Your task to perform on an android device: Search for vegetarian restaurants on Maps Image 0: 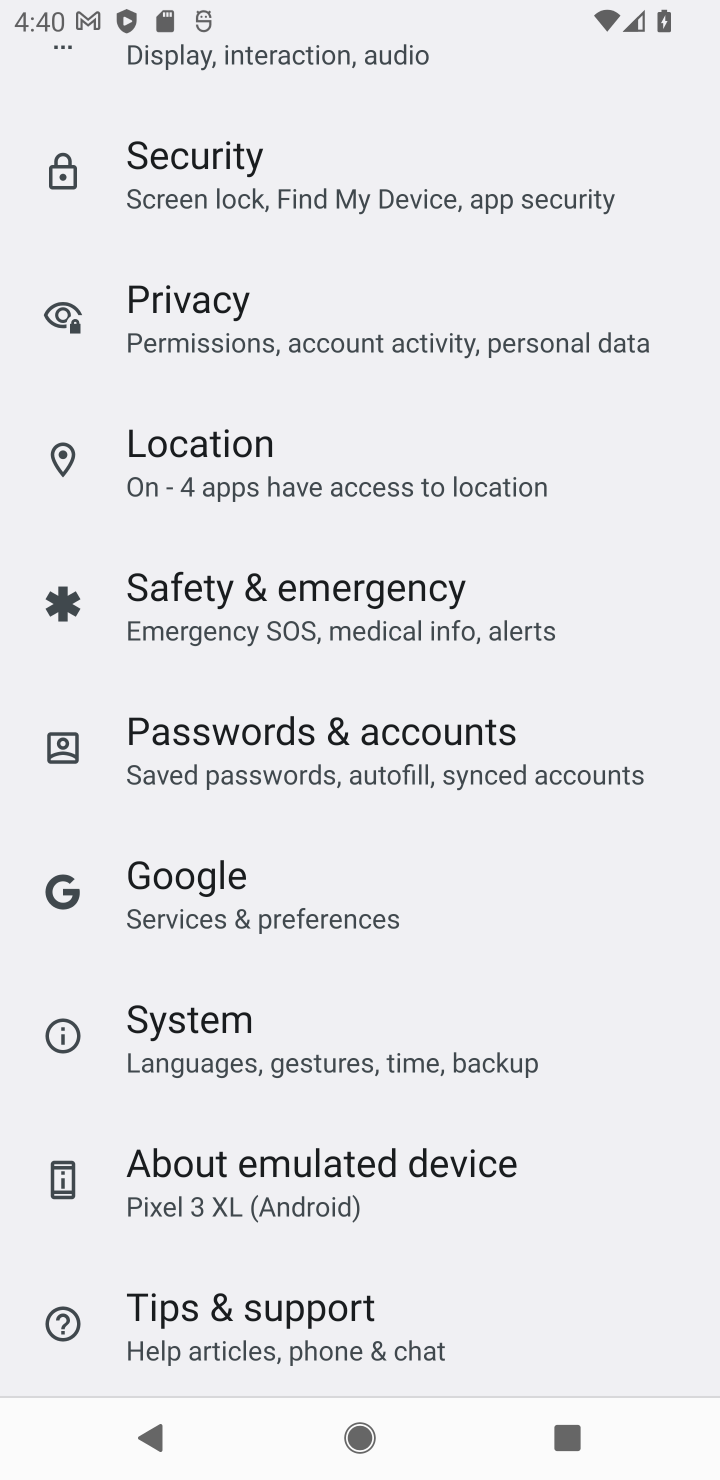
Step 0: press home button
Your task to perform on an android device: Search for vegetarian restaurants on Maps Image 1: 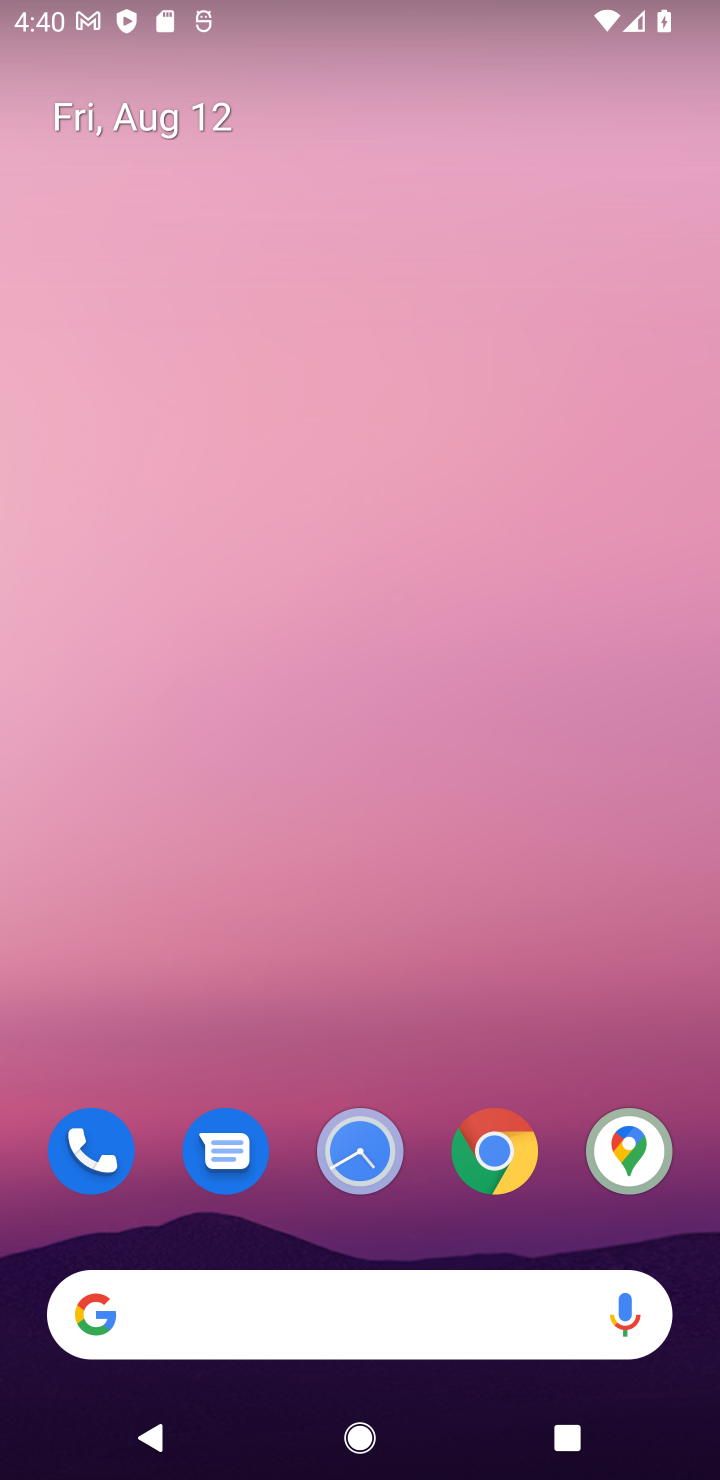
Step 1: drag from (486, 903) to (551, 41)
Your task to perform on an android device: Search for vegetarian restaurants on Maps Image 2: 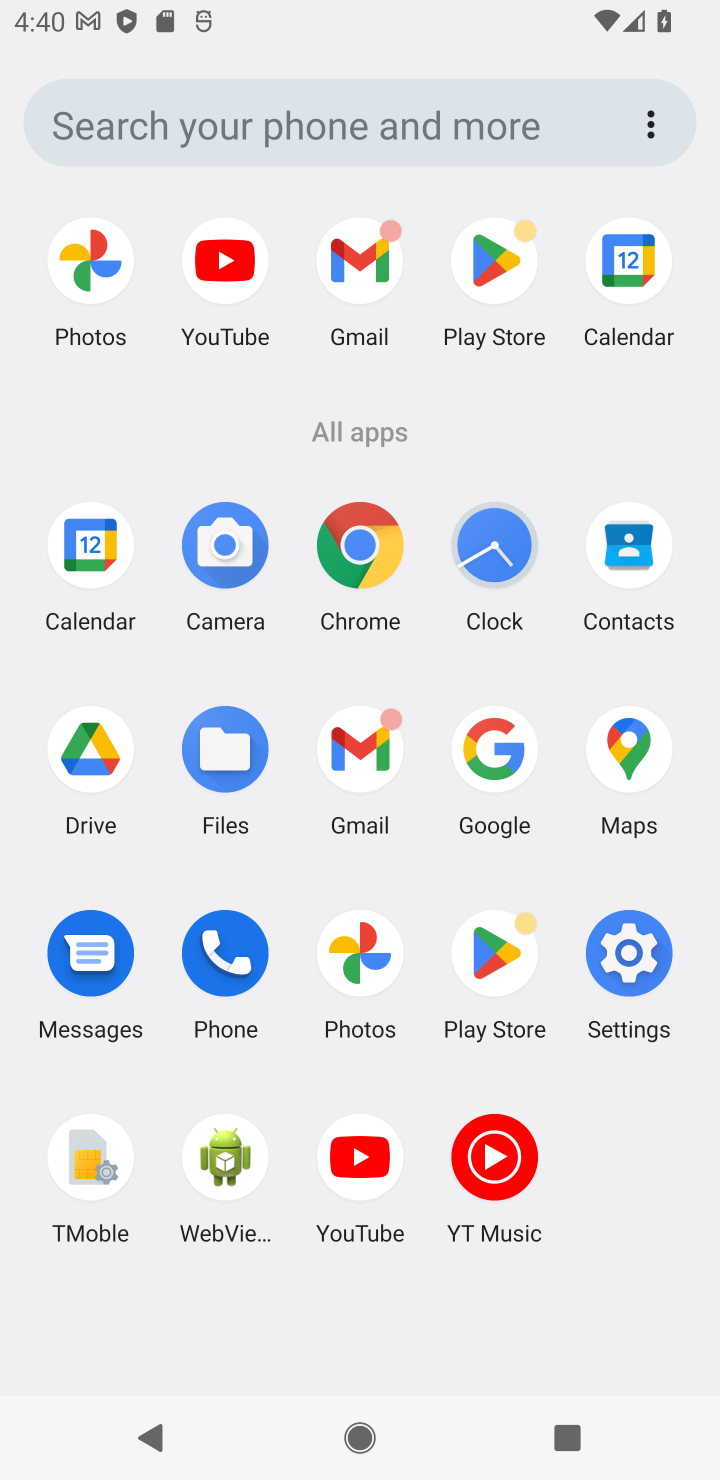
Step 2: click (651, 757)
Your task to perform on an android device: Search for vegetarian restaurants on Maps Image 3: 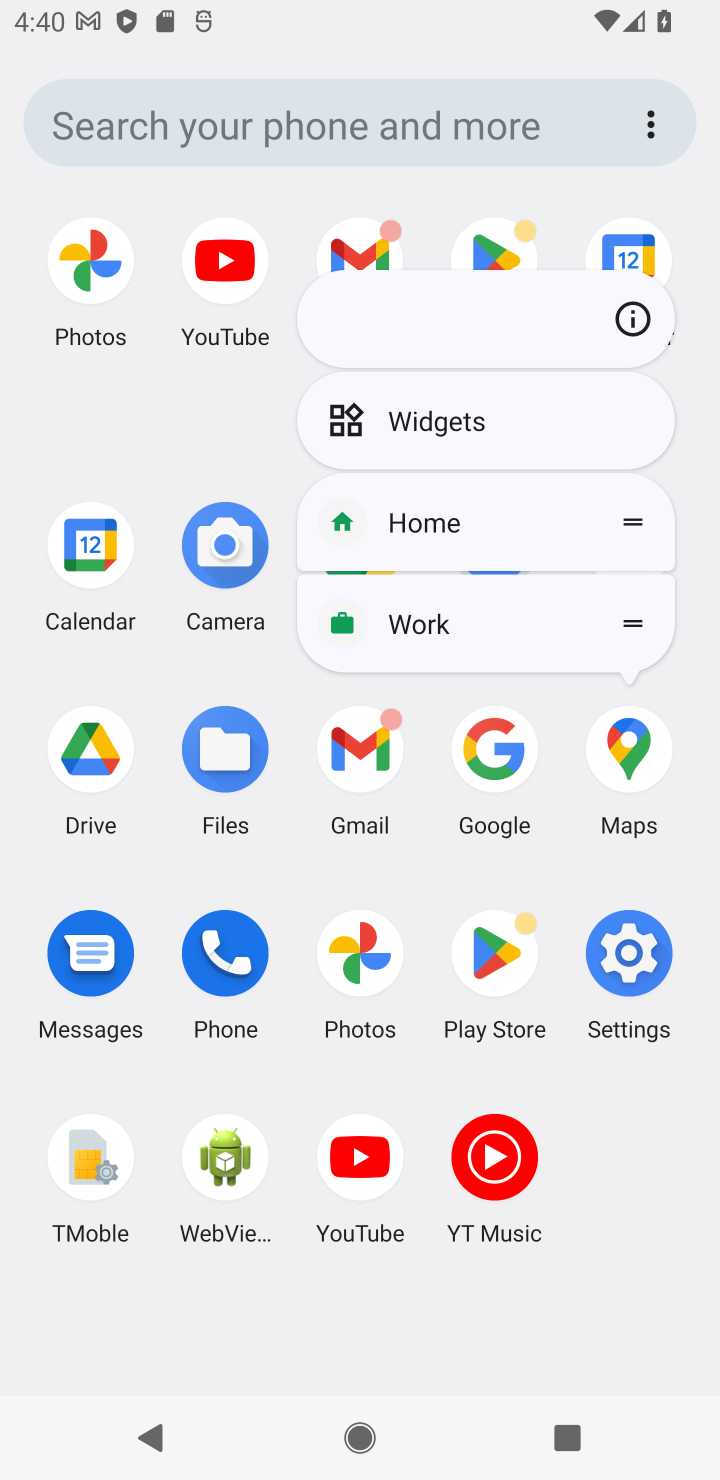
Step 3: click (612, 769)
Your task to perform on an android device: Search for vegetarian restaurants on Maps Image 4: 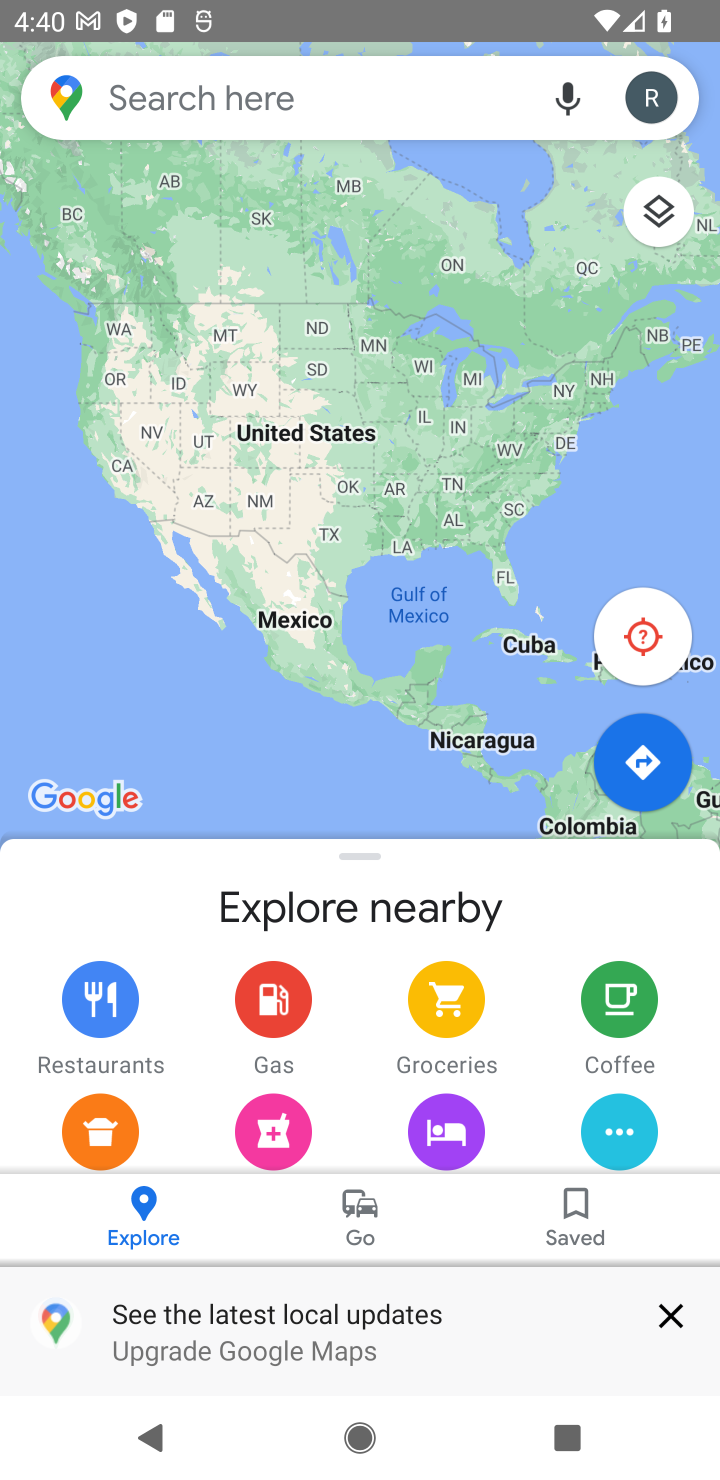
Step 4: click (259, 85)
Your task to perform on an android device: Search for vegetarian restaurants on Maps Image 5: 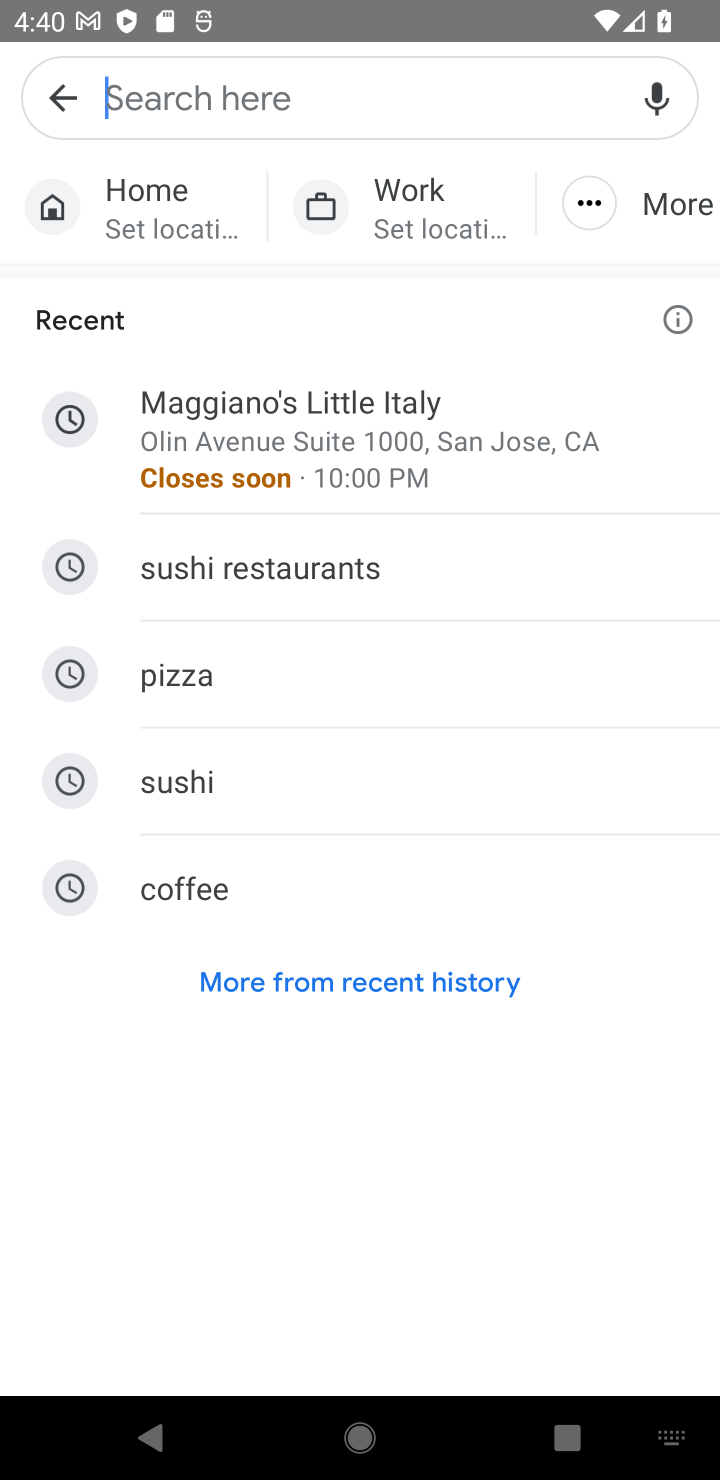
Step 5: type "vegetarian restaurants"
Your task to perform on an android device: Search for vegetarian restaurants on Maps Image 6: 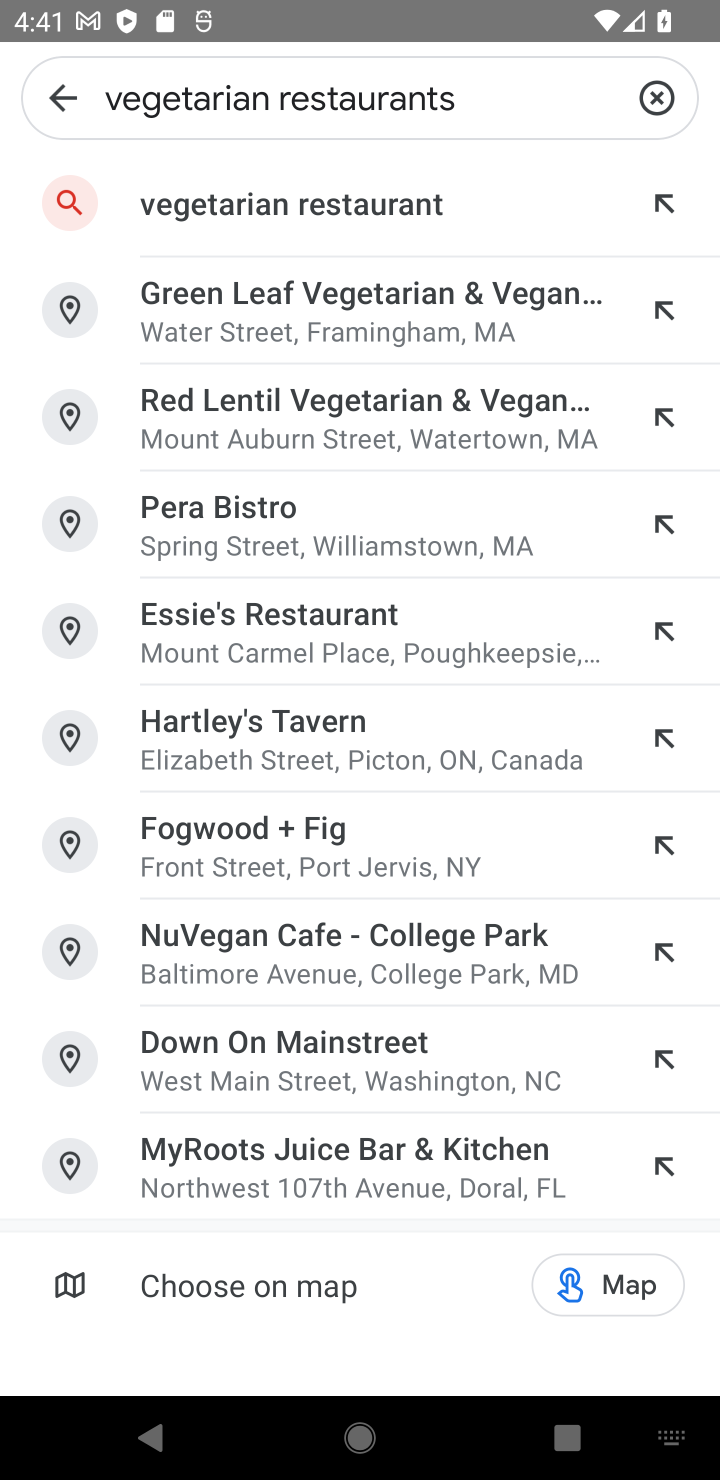
Step 6: press enter
Your task to perform on an android device: Search for vegetarian restaurants on Maps Image 7: 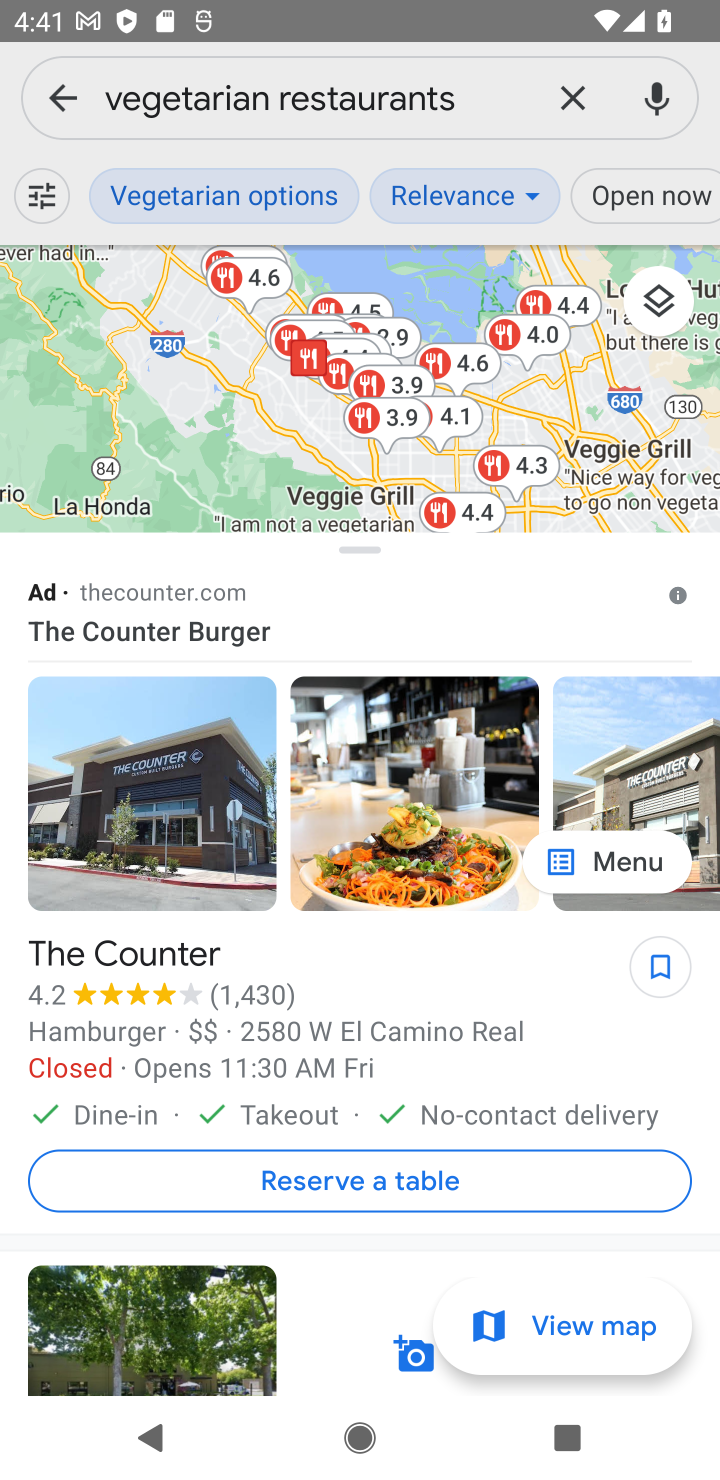
Step 7: task complete